Your task to perform on an android device: make emails show in primary in the gmail app Image 0: 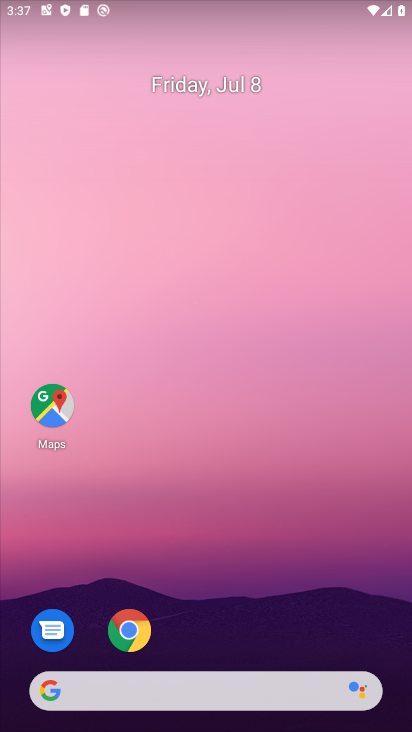
Step 0: drag from (232, 654) to (206, 200)
Your task to perform on an android device: make emails show in primary in the gmail app Image 1: 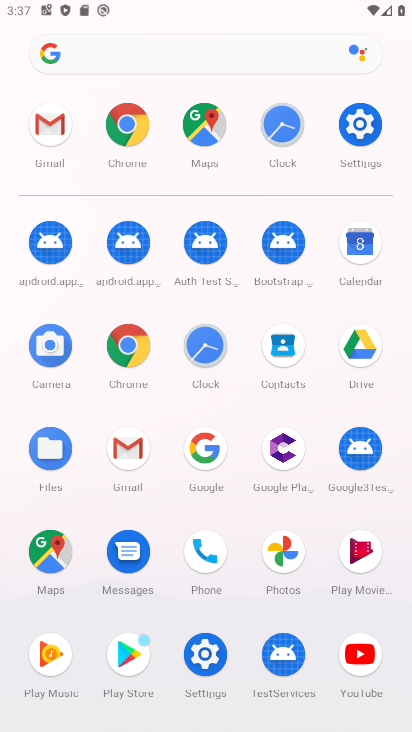
Step 1: click (51, 150)
Your task to perform on an android device: make emails show in primary in the gmail app Image 2: 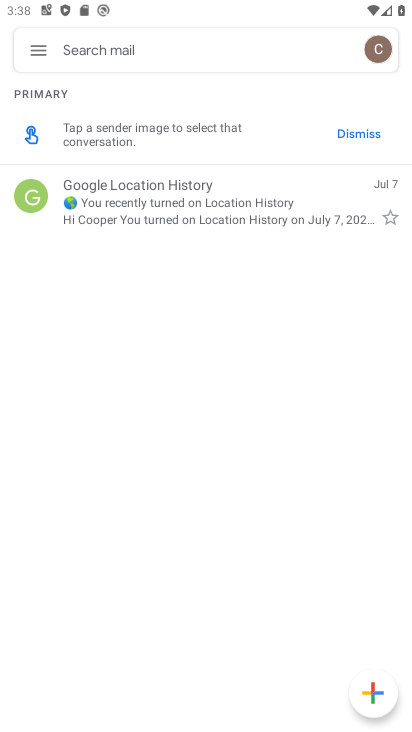
Step 2: click (39, 45)
Your task to perform on an android device: make emails show in primary in the gmail app Image 3: 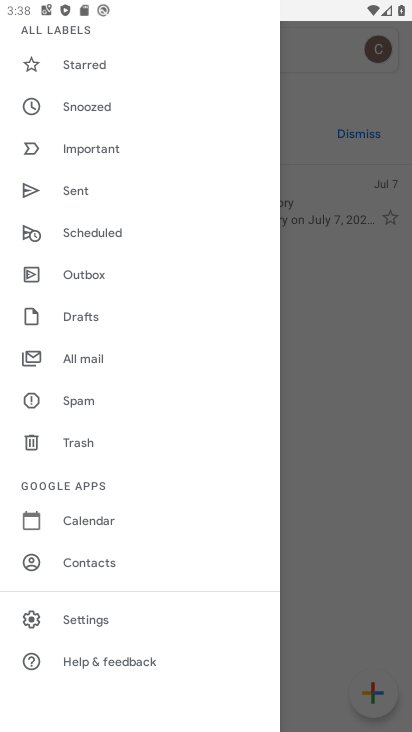
Step 3: click (100, 615)
Your task to perform on an android device: make emails show in primary in the gmail app Image 4: 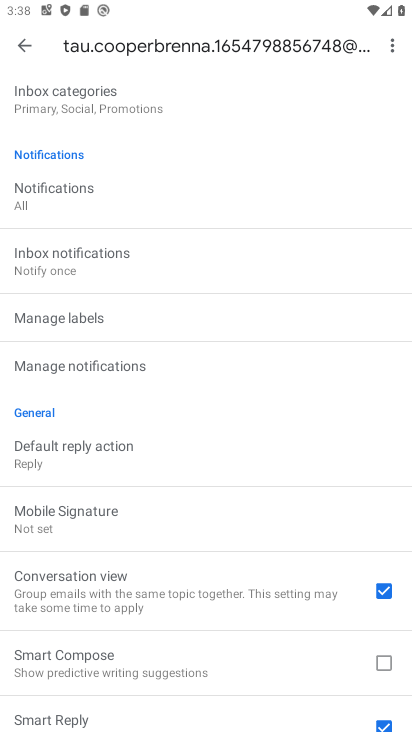
Step 4: task complete